Your task to perform on an android device: star an email in the gmail app Image 0: 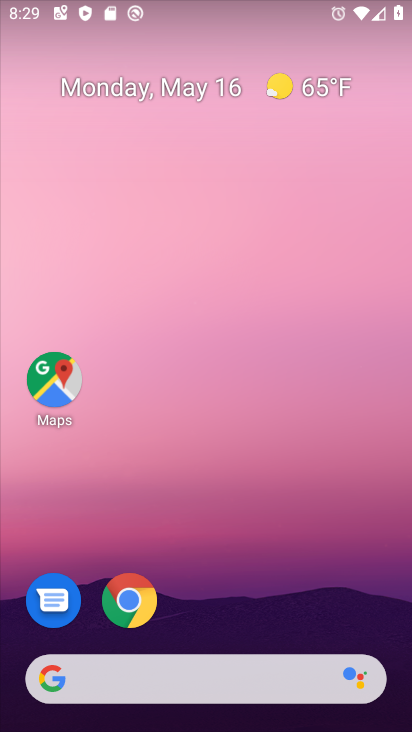
Step 0: drag from (306, 35) to (362, 5)
Your task to perform on an android device: star an email in the gmail app Image 1: 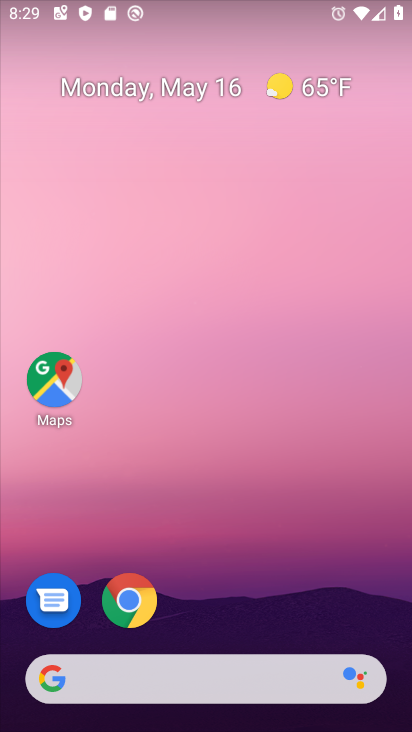
Step 1: drag from (192, 602) to (245, 76)
Your task to perform on an android device: star an email in the gmail app Image 2: 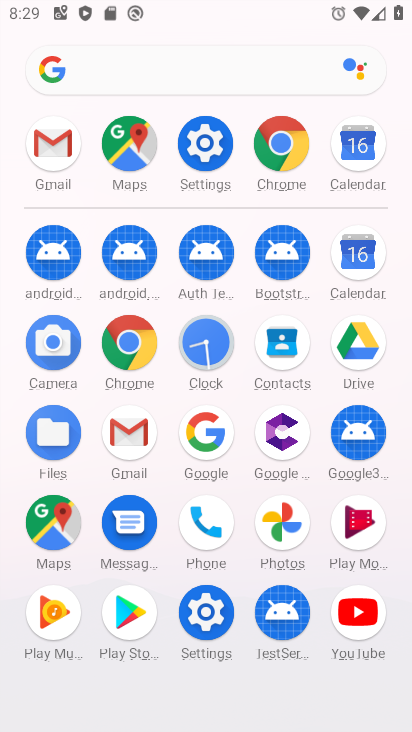
Step 2: click (136, 432)
Your task to perform on an android device: star an email in the gmail app Image 3: 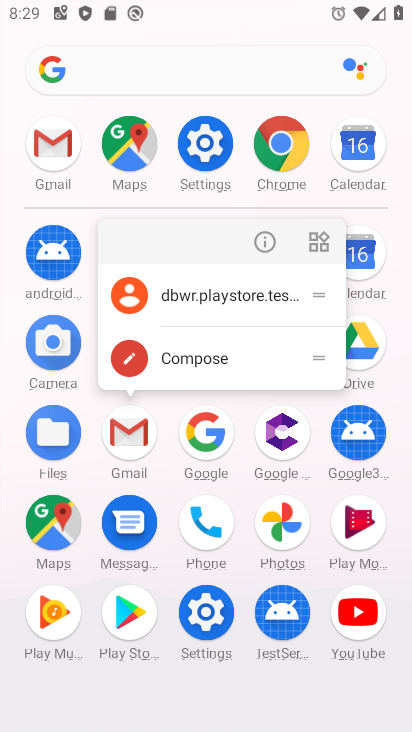
Step 3: click (233, 290)
Your task to perform on an android device: star an email in the gmail app Image 4: 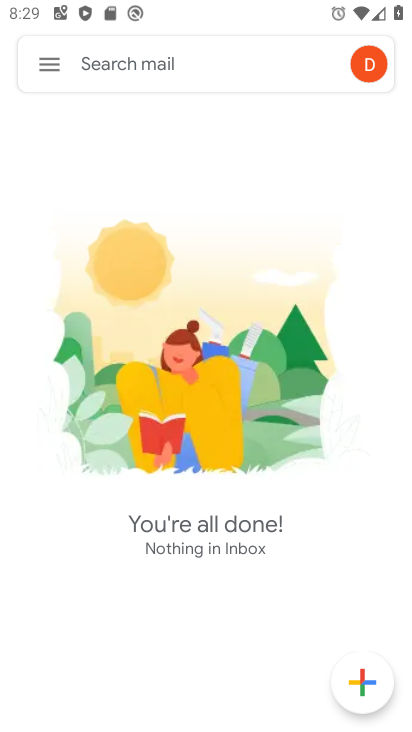
Step 4: click (59, 72)
Your task to perform on an android device: star an email in the gmail app Image 5: 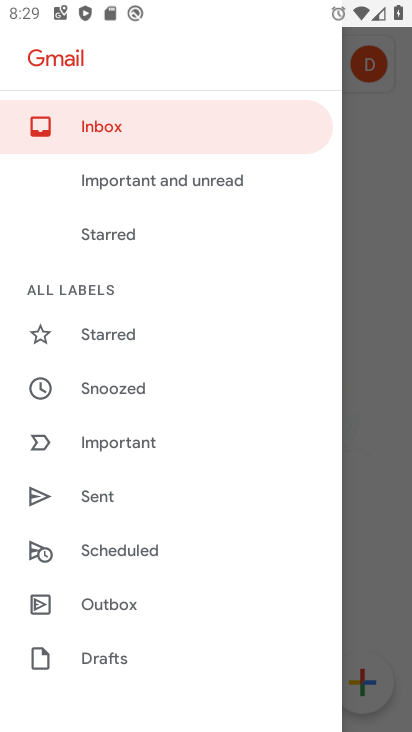
Step 5: click (155, 343)
Your task to perform on an android device: star an email in the gmail app Image 6: 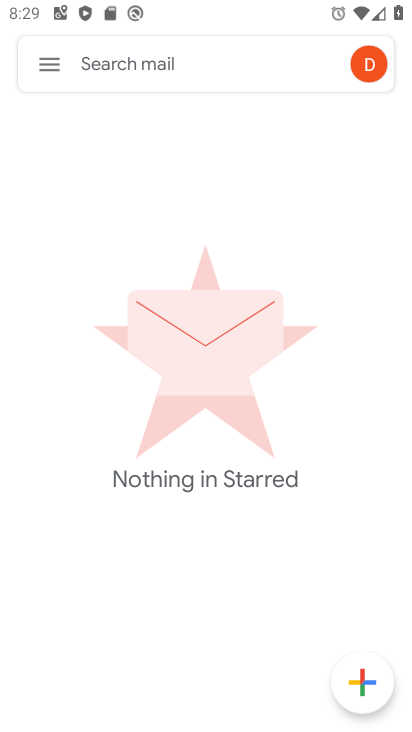
Step 6: task complete